Your task to perform on an android device: Open calendar and show me the second week of next month Image 0: 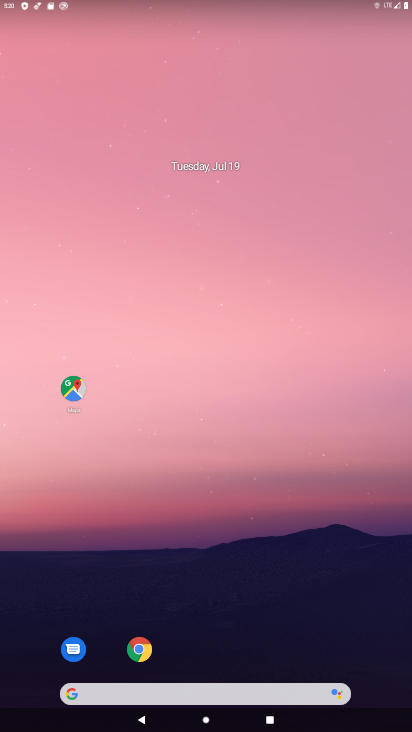
Step 0: drag from (257, 606) to (251, 40)
Your task to perform on an android device: Open calendar and show me the second week of next month Image 1: 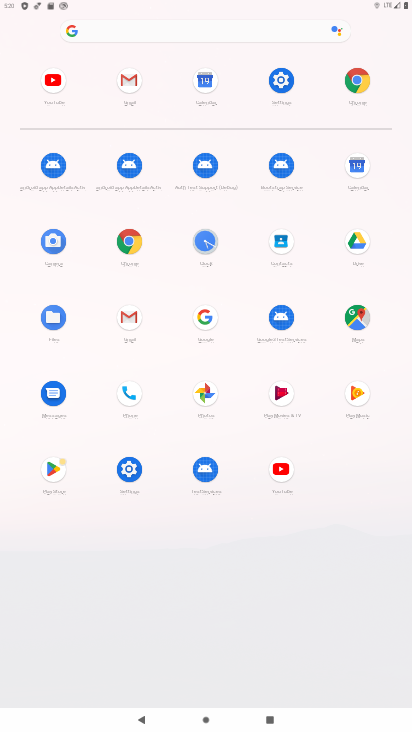
Step 1: click (357, 166)
Your task to perform on an android device: Open calendar and show me the second week of next month Image 2: 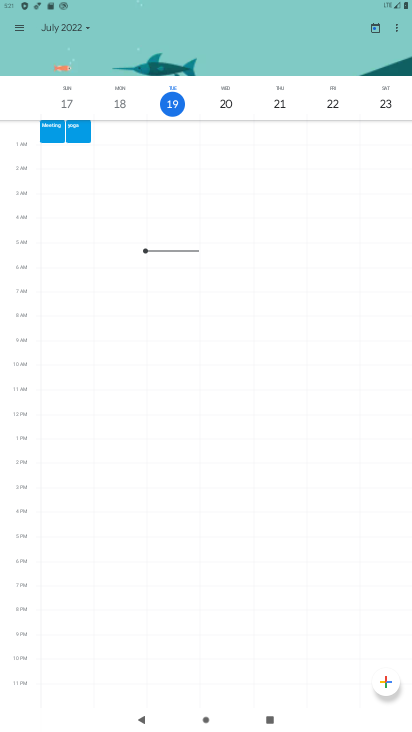
Step 2: click (81, 25)
Your task to perform on an android device: Open calendar and show me the second week of next month Image 3: 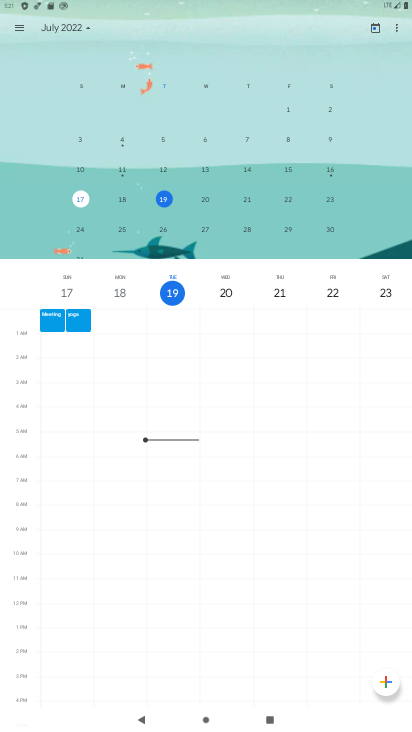
Step 3: drag from (156, 164) to (1, 163)
Your task to perform on an android device: Open calendar and show me the second week of next month Image 4: 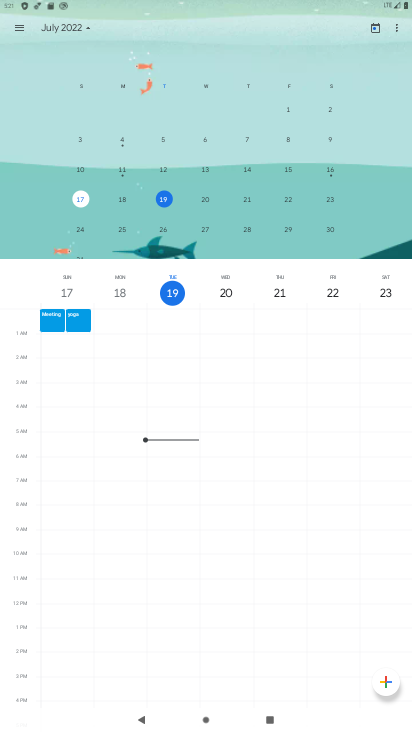
Step 4: drag from (329, 159) to (81, 175)
Your task to perform on an android device: Open calendar and show me the second week of next month Image 5: 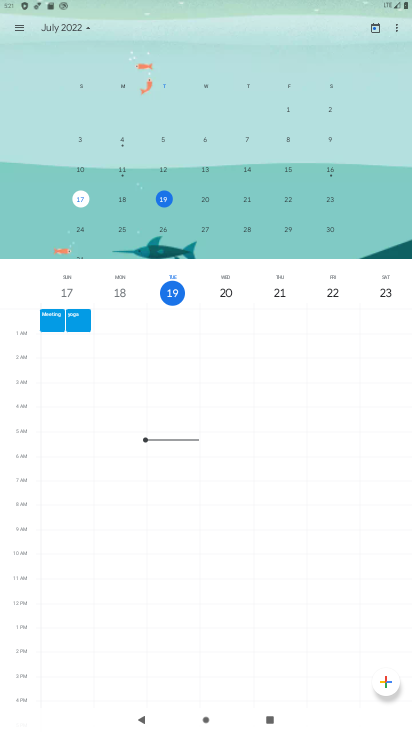
Step 5: drag from (337, 160) to (18, 161)
Your task to perform on an android device: Open calendar and show me the second week of next month Image 6: 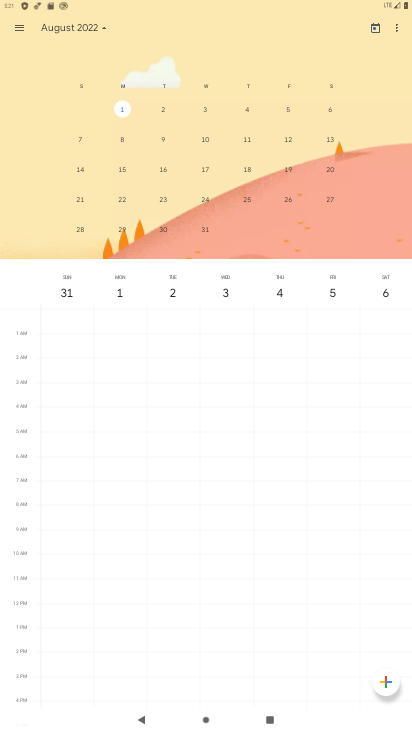
Step 6: click (195, 133)
Your task to perform on an android device: Open calendar and show me the second week of next month Image 7: 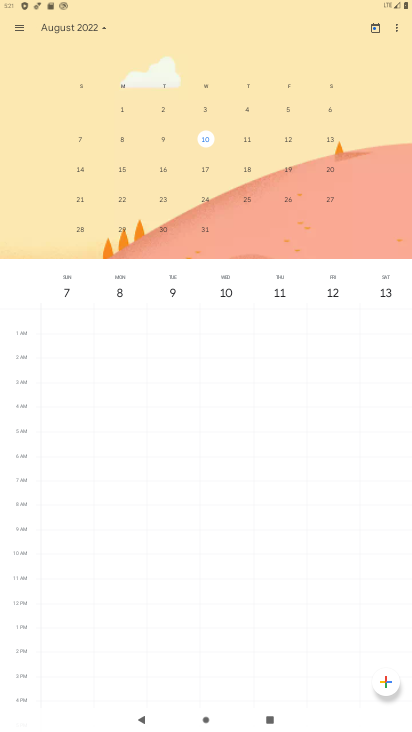
Step 7: task complete